Your task to perform on an android device: add a label to a message in the gmail app Image 0: 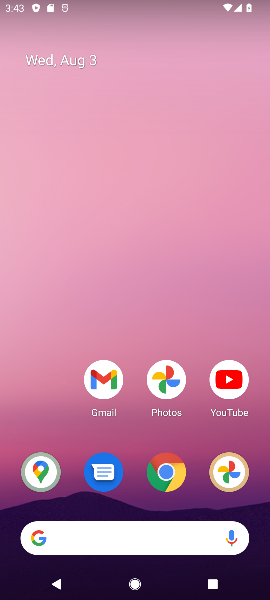
Step 0: drag from (26, 407) to (107, 11)
Your task to perform on an android device: add a label to a message in the gmail app Image 1: 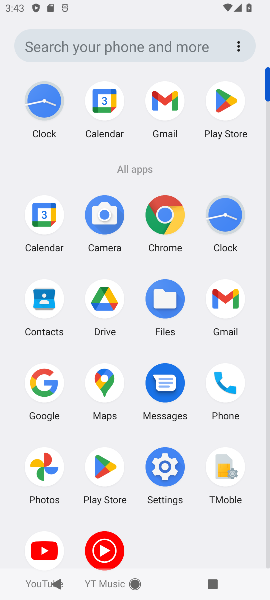
Step 1: click (161, 100)
Your task to perform on an android device: add a label to a message in the gmail app Image 2: 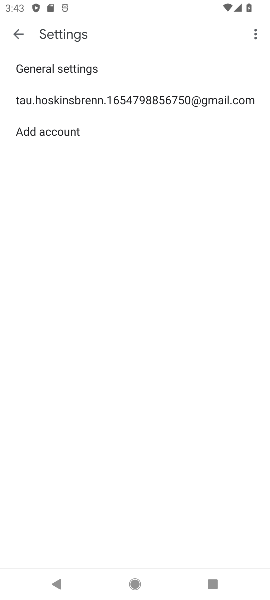
Step 2: click (15, 36)
Your task to perform on an android device: add a label to a message in the gmail app Image 3: 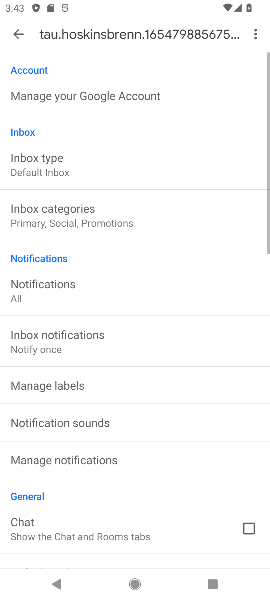
Step 3: click (19, 25)
Your task to perform on an android device: add a label to a message in the gmail app Image 4: 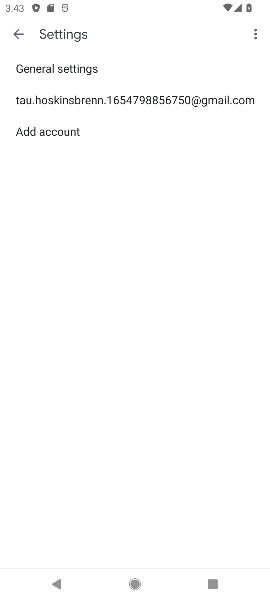
Step 4: click (25, 30)
Your task to perform on an android device: add a label to a message in the gmail app Image 5: 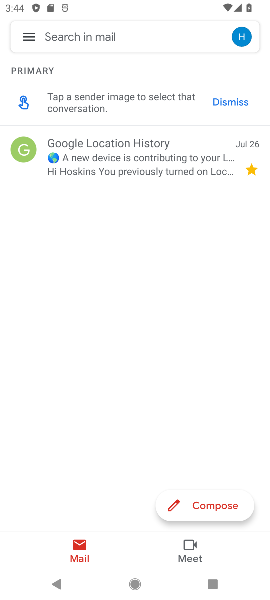
Step 5: click (125, 166)
Your task to perform on an android device: add a label to a message in the gmail app Image 6: 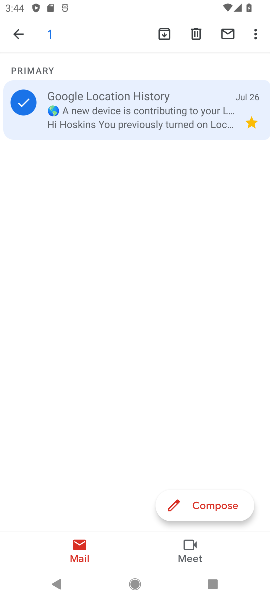
Step 6: click (251, 35)
Your task to perform on an android device: add a label to a message in the gmail app Image 7: 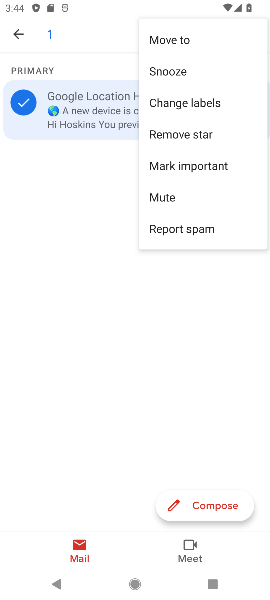
Step 7: click (194, 107)
Your task to perform on an android device: add a label to a message in the gmail app Image 8: 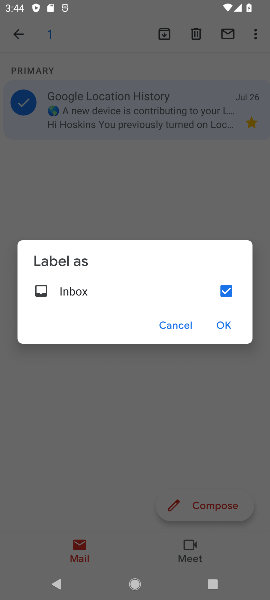
Step 8: click (231, 321)
Your task to perform on an android device: add a label to a message in the gmail app Image 9: 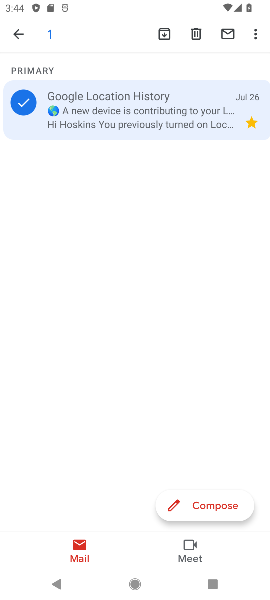
Step 9: task complete